Your task to perform on an android device: change the clock display to analog Image 0: 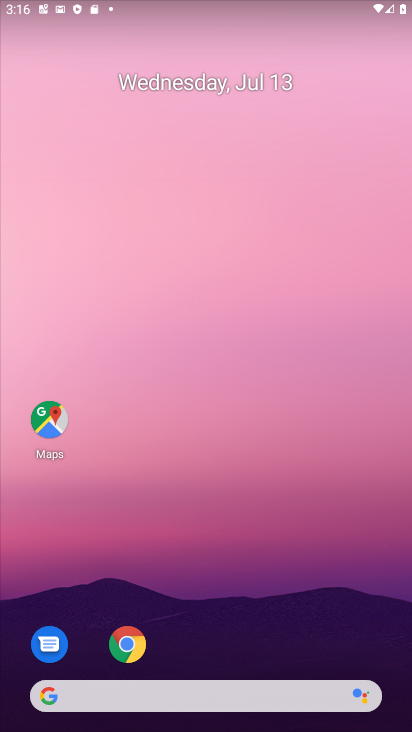
Step 0: drag from (19, 726) to (141, 207)
Your task to perform on an android device: change the clock display to analog Image 1: 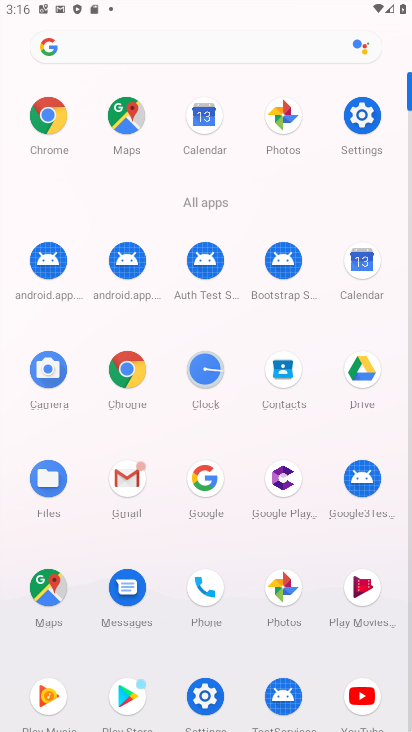
Step 1: click (201, 384)
Your task to perform on an android device: change the clock display to analog Image 2: 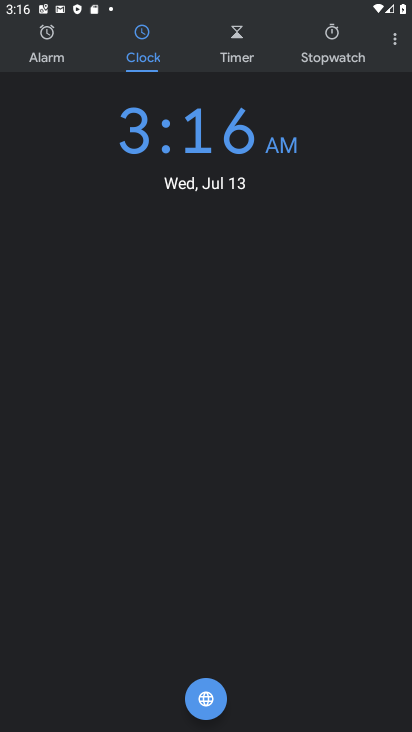
Step 2: click (393, 38)
Your task to perform on an android device: change the clock display to analog Image 3: 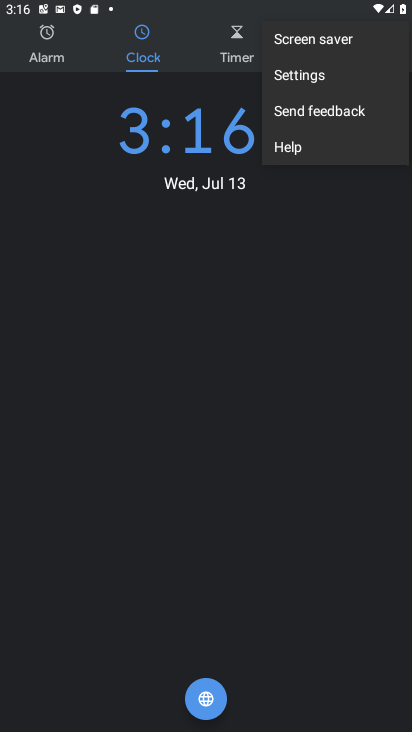
Step 3: click (305, 64)
Your task to perform on an android device: change the clock display to analog Image 4: 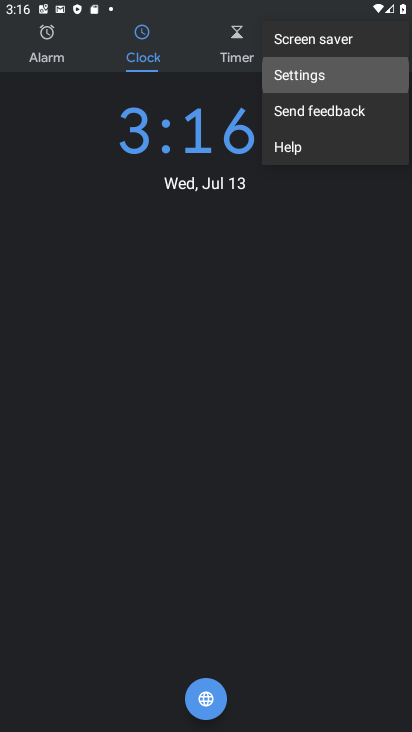
Step 4: click (305, 70)
Your task to perform on an android device: change the clock display to analog Image 5: 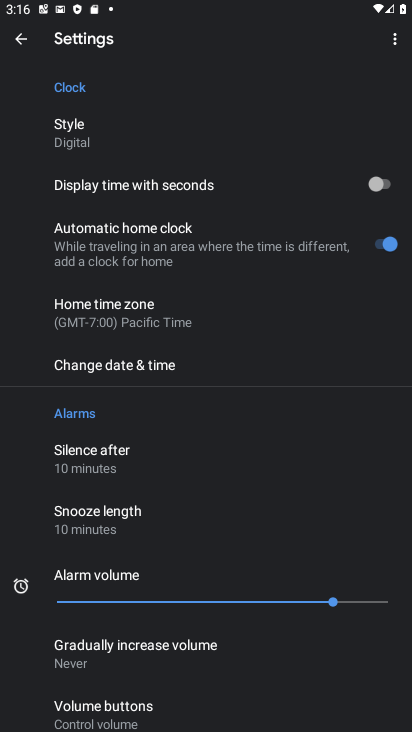
Step 5: click (89, 143)
Your task to perform on an android device: change the clock display to analog Image 6: 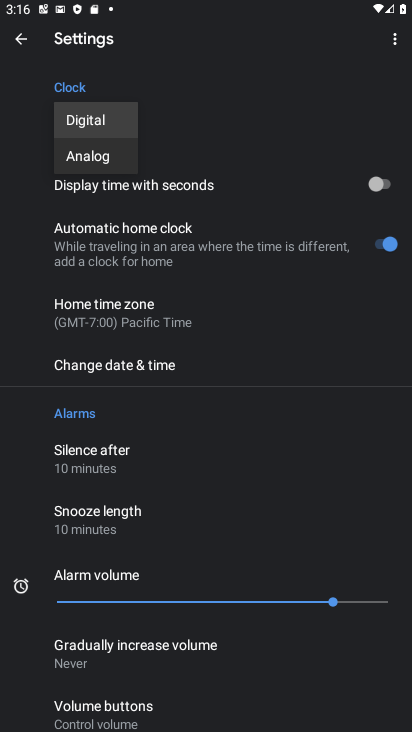
Step 6: click (86, 159)
Your task to perform on an android device: change the clock display to analog Image 7: 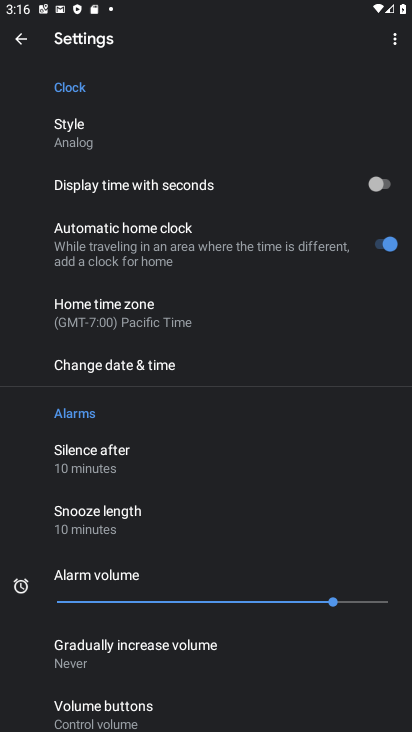
Step 7: task complete